Your task to perform on an android device: Go to ESPN.com Image 0: 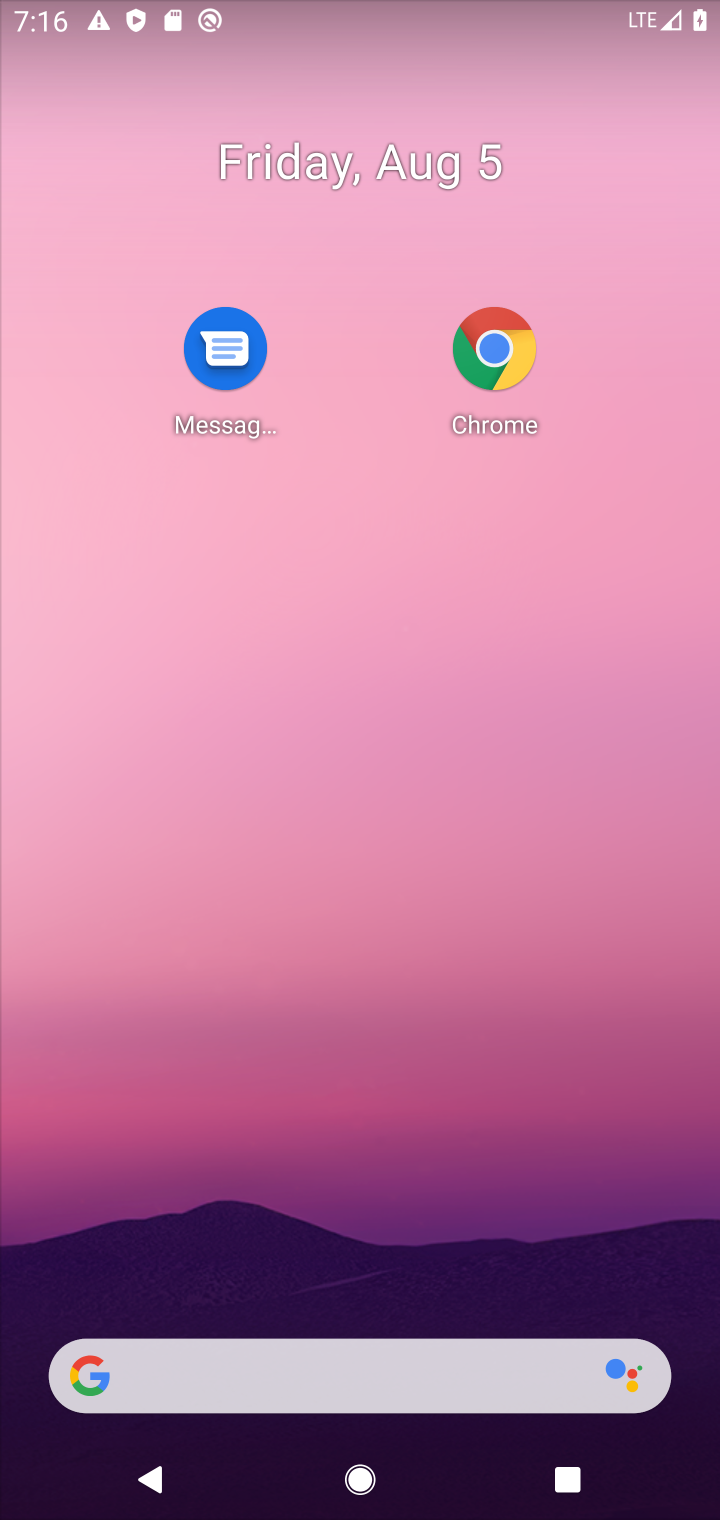
Step 0: drag from (468, 1407) to (549, 470)
Your task to perform on an android device: Go to ESPN.com Image 1: 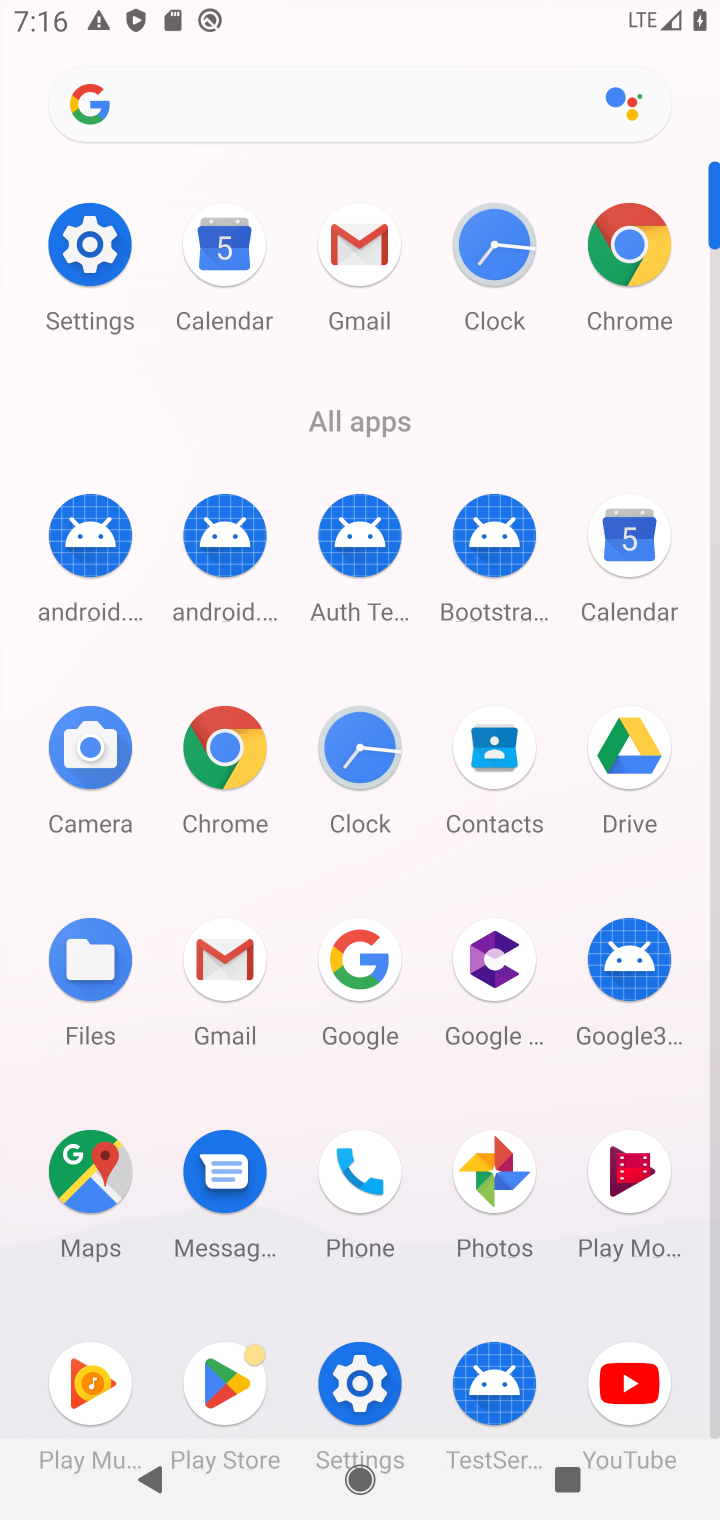
Step 1: click (597, 257)
Your task to perform on an android device: Go to ESPN.com Image 2: 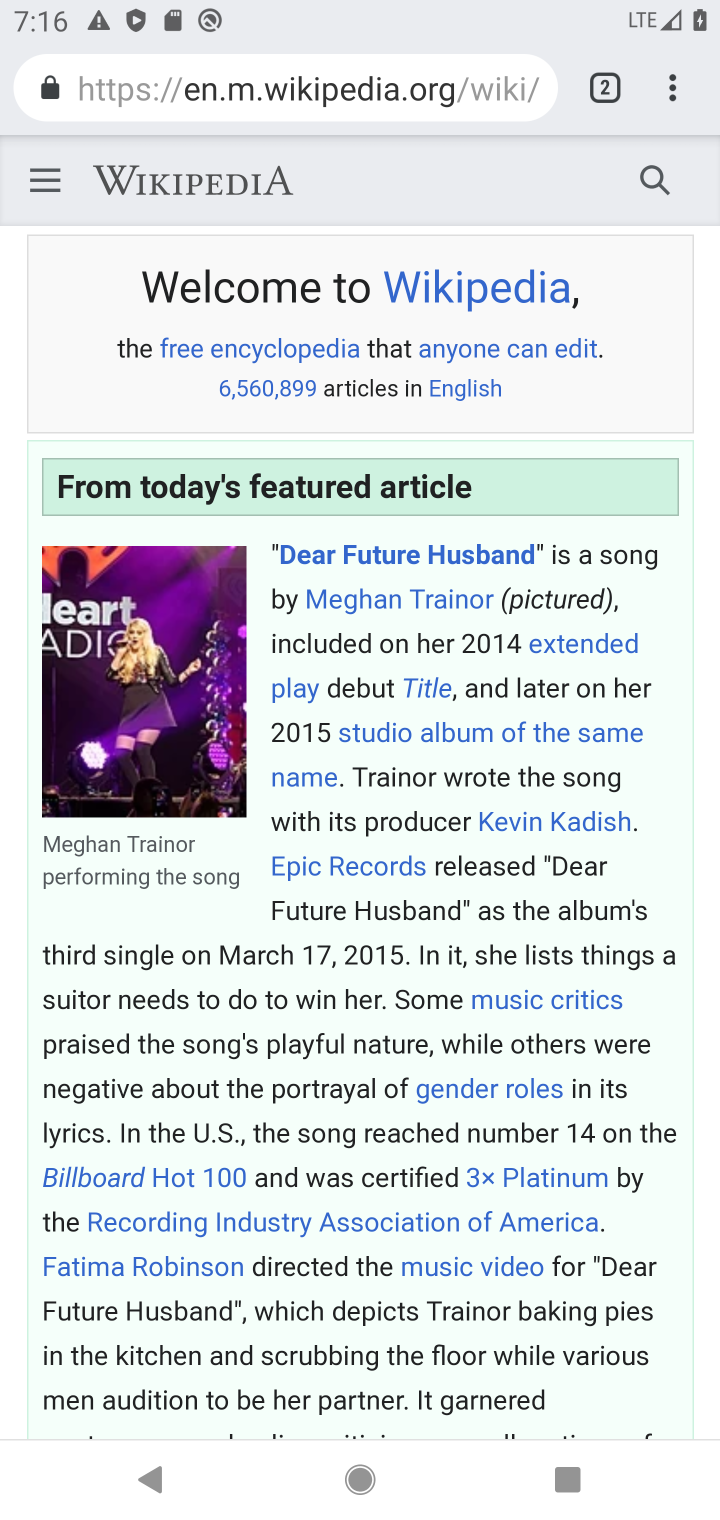
Step 2: click (396, 109)
Your task to perform on an android device: Go to ESPN.com Image 3: 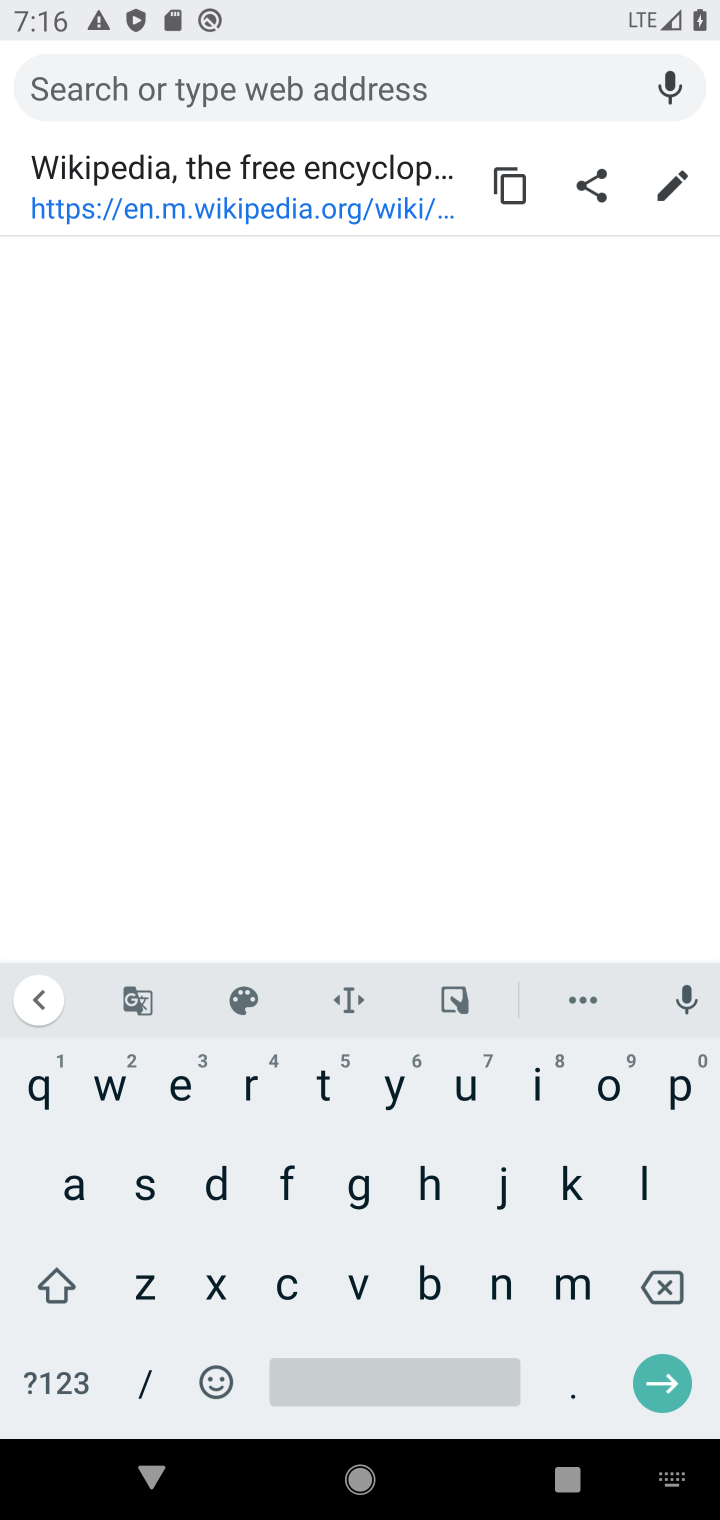
Step 3: click (180, 1087)
Your task to perform on an android device: Go to ESPN.com Image 4: 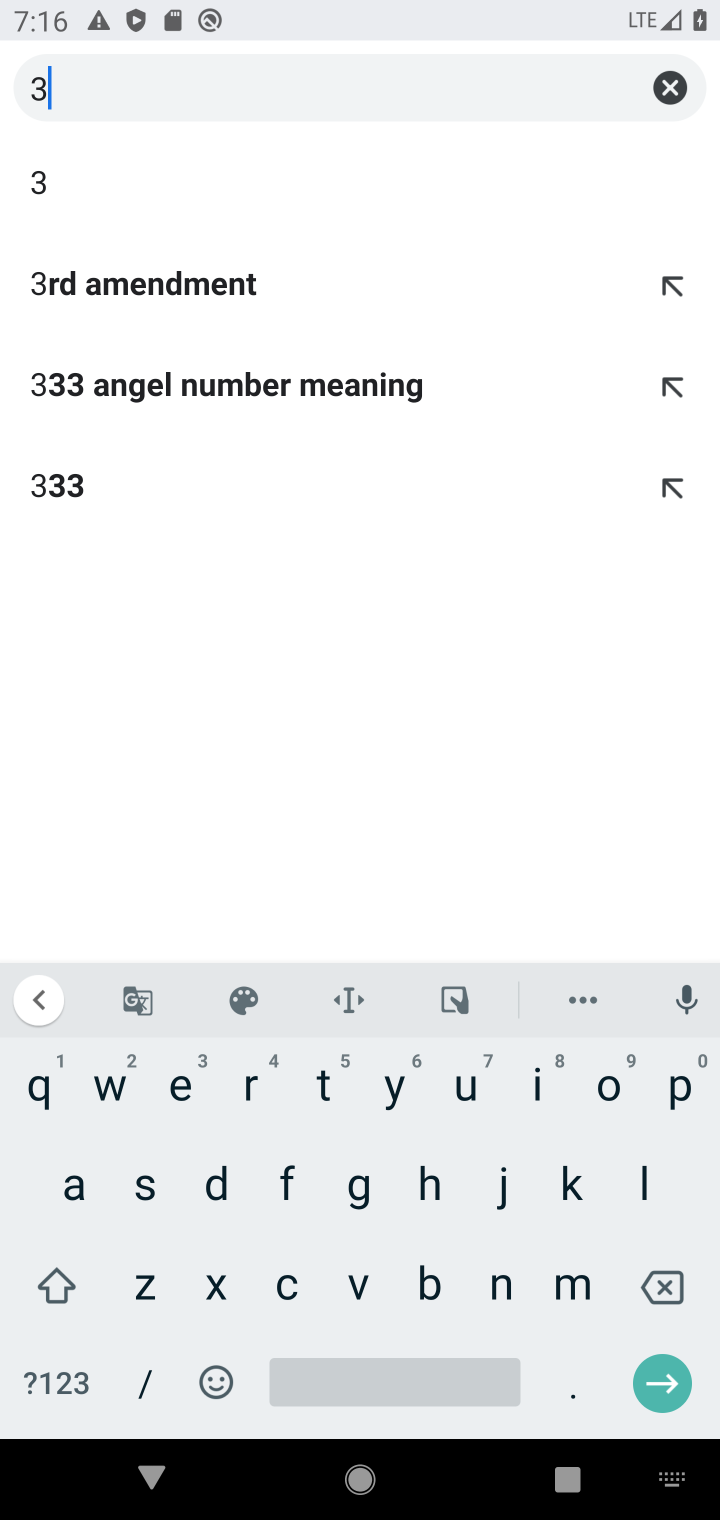
Step 4: click (660, 1275)
Your task to perform on an android device: Go to ESPN.com Image 5: 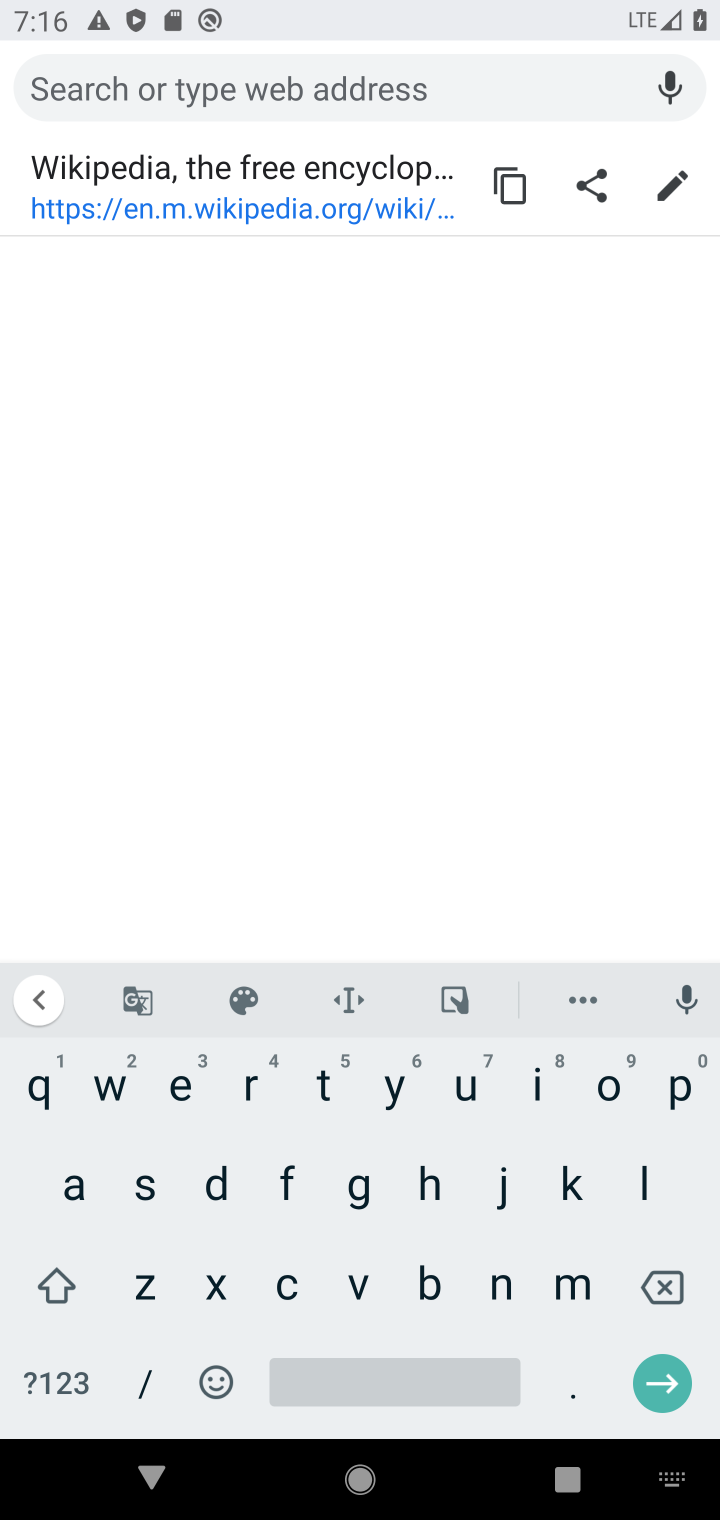
Step 5: click (179, 1086)
Your task to perform on an android device: Go to ESPN.com Image 6: 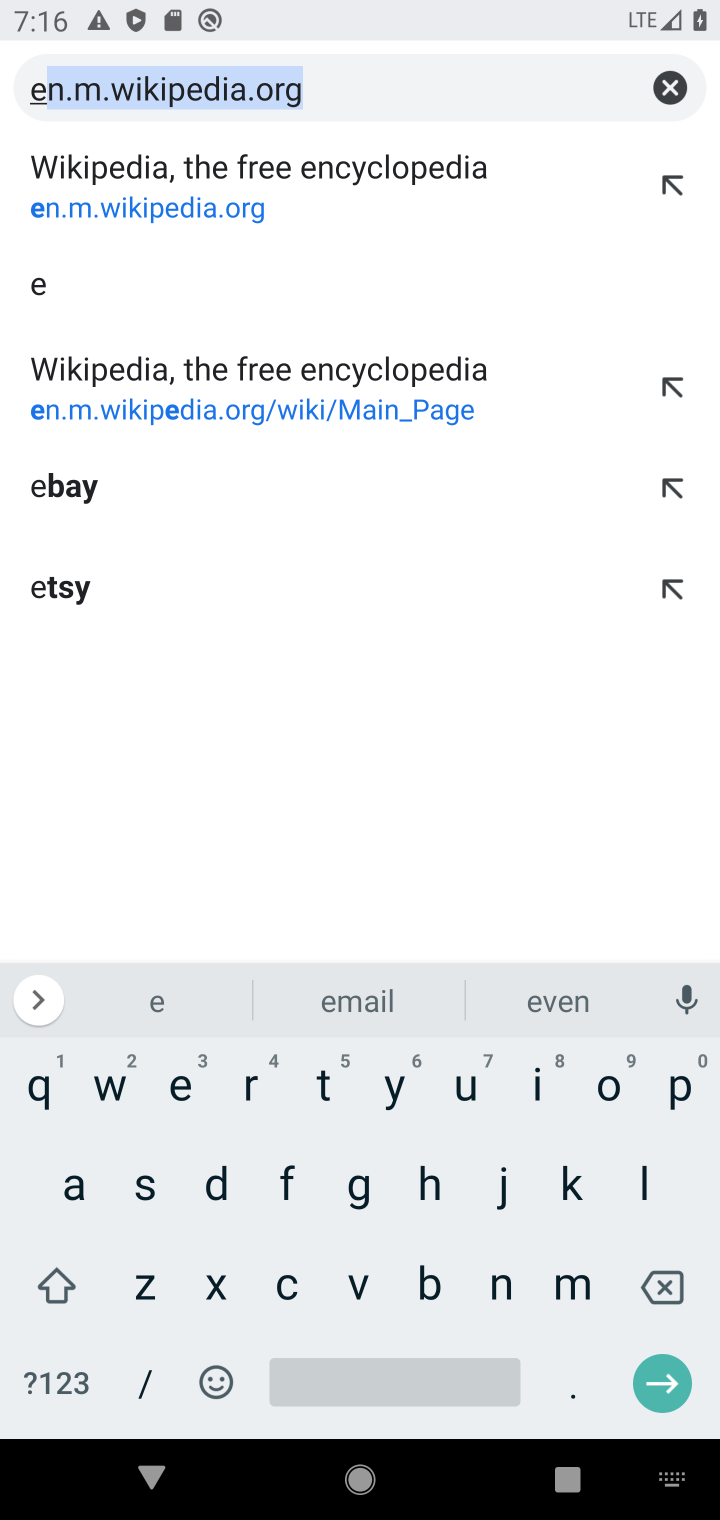
Step 6: click (143, 1173)
Your task to perform on an android device: Go to ESPN.com Image 7: 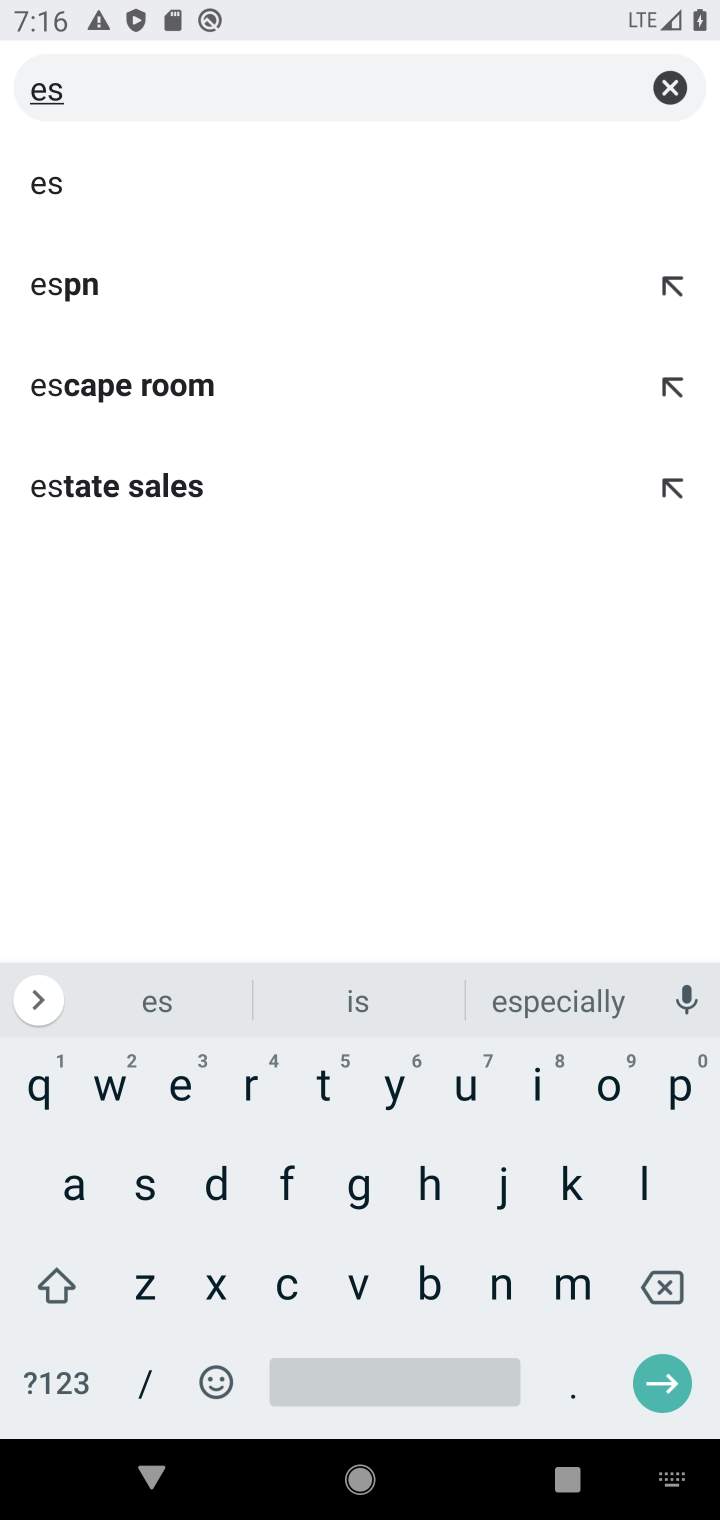
Step 7: click (111, 290)
Your task to perform on an android device: Go to ESPN.com Image 8: 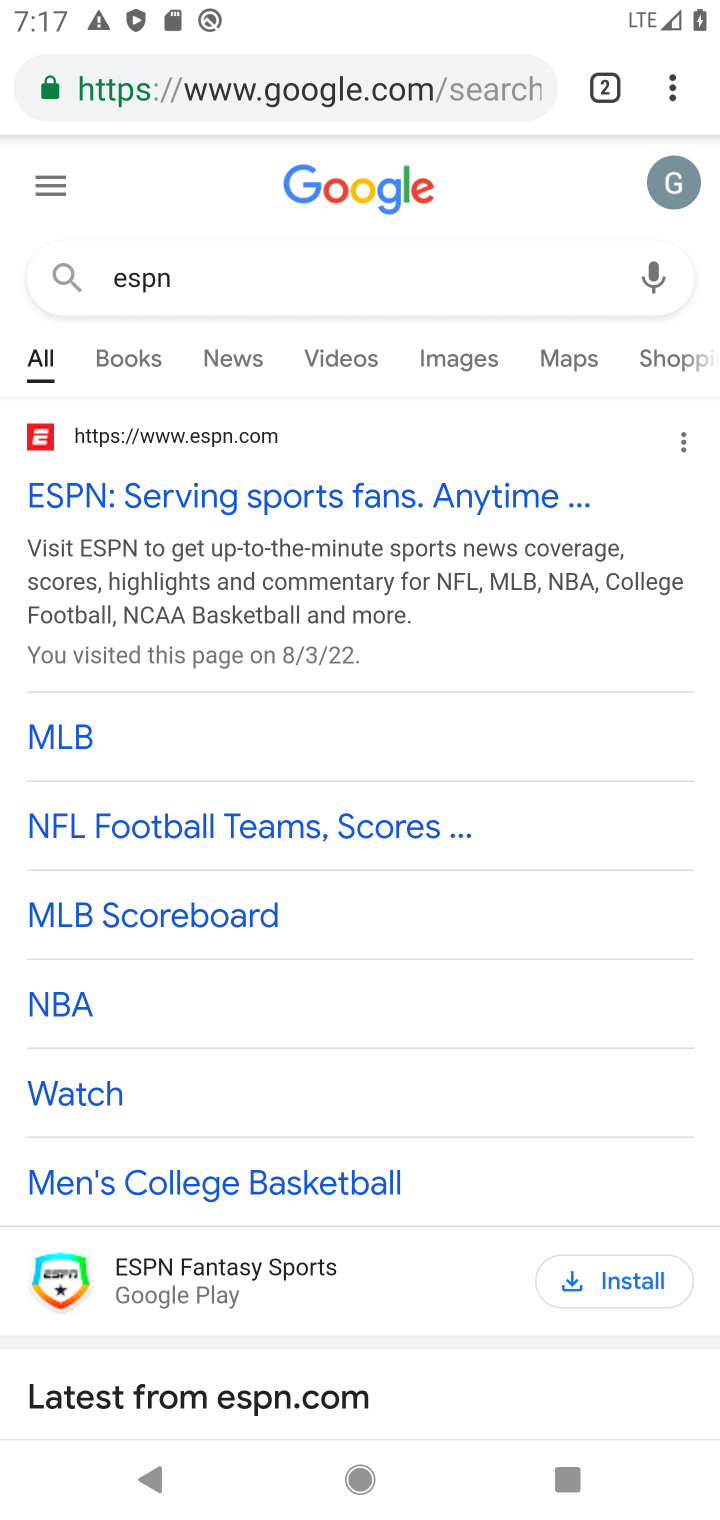
Step 8: click (127, 486)
Your task to perform on an android device: Go to ESPN.com Image 9: 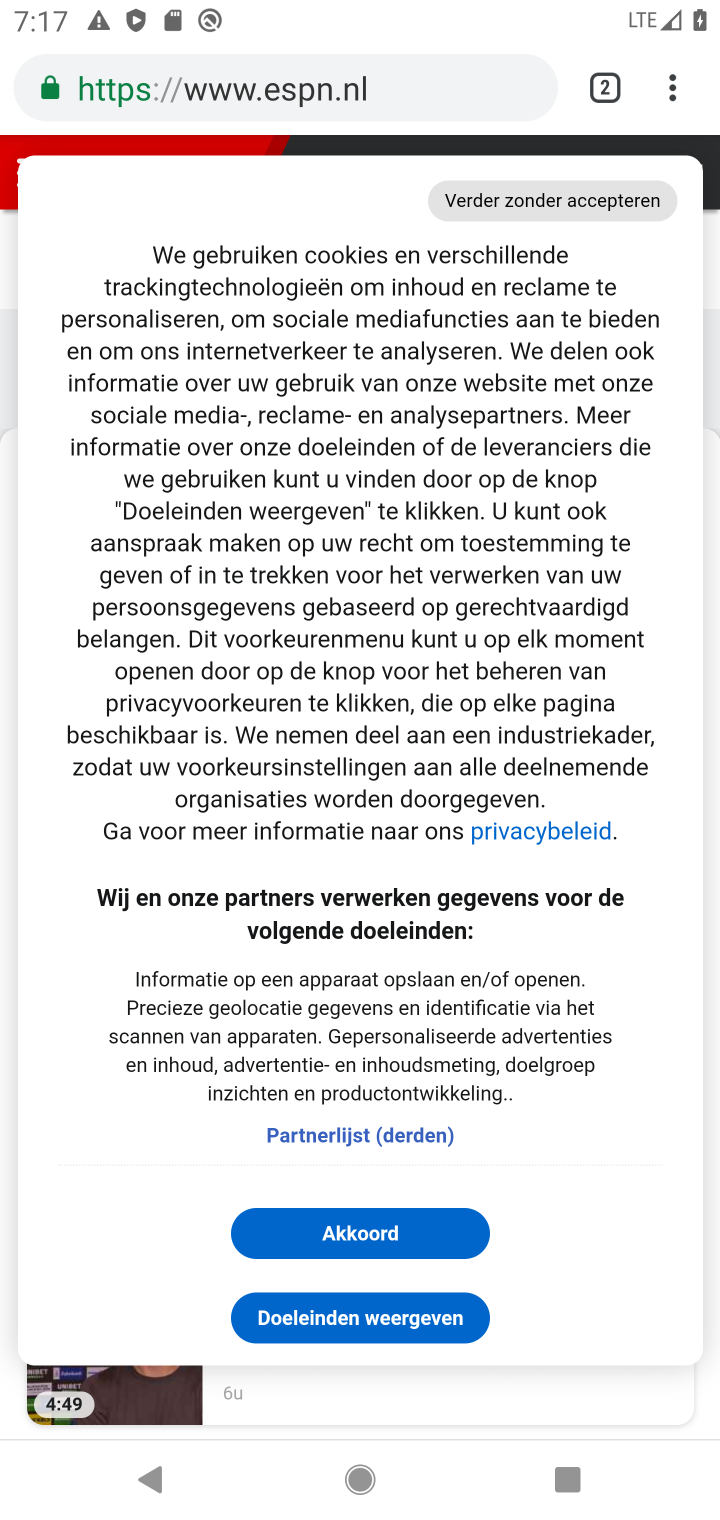
Step 9: task complete